Your task to perform on an android device: Go to Amazon Image 0: 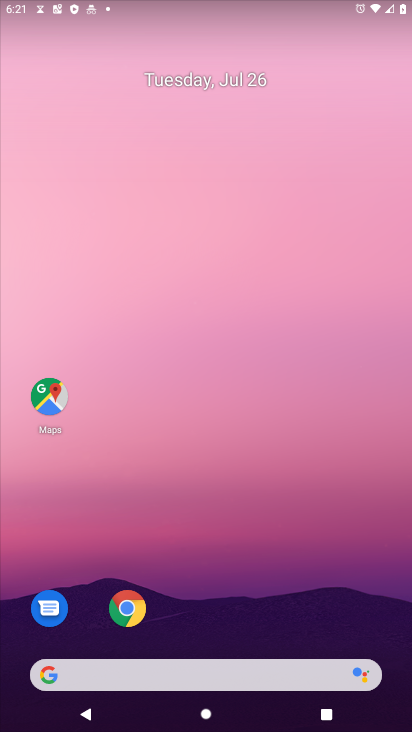
Step 0: click (41, 687)
Your task to perform on an android device: Go to Amazon Image 1: 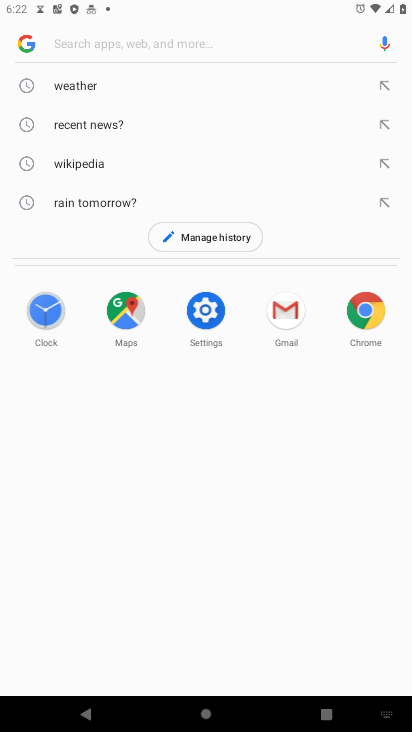
Step 1: type "Amazon"
Your task to perform on an android device: Go to Amazon Image 2: 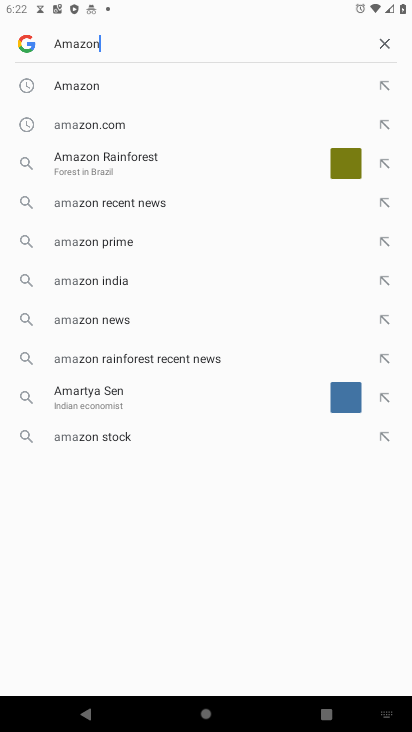
Step 2: press enter
Your task to perform on an android device: Go to Amazon Image 3: 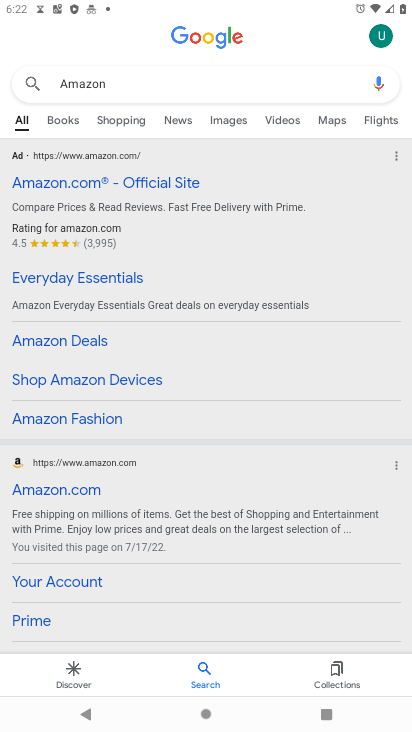
Step 3: click (91, 195)
Your task to perform on an android device: Go to Amazon Image 4: 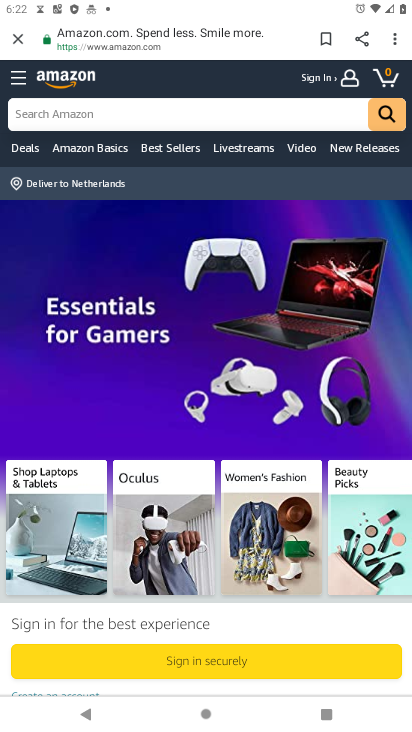
Step 4: task complete